Your task to perform on an android device: Open Google Chrome and click the shortcut for Amazon.com Image 0: 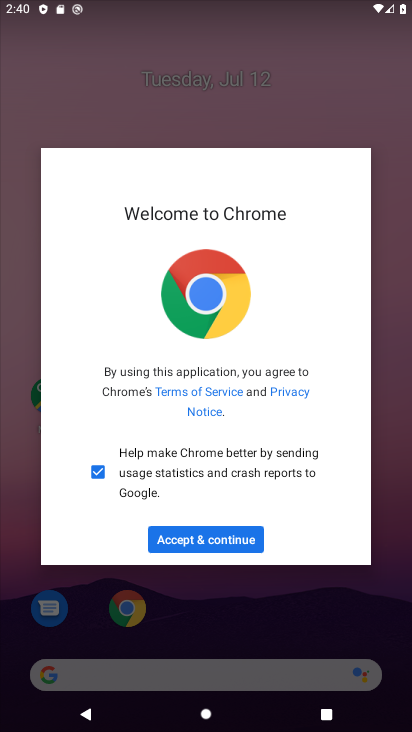
Step 0: click (203, 527)
Your task to perform on an android device: Open Google Chrome and click the shortcut for Amazon.com Image 1: 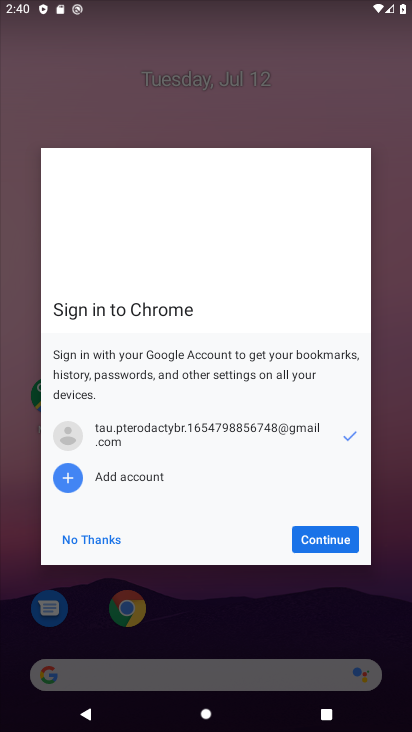
Step 1: click (314, 536)
Your task to perform on an android device: Open Google Chrome and click the shortcut for Amazon.com Image 2: 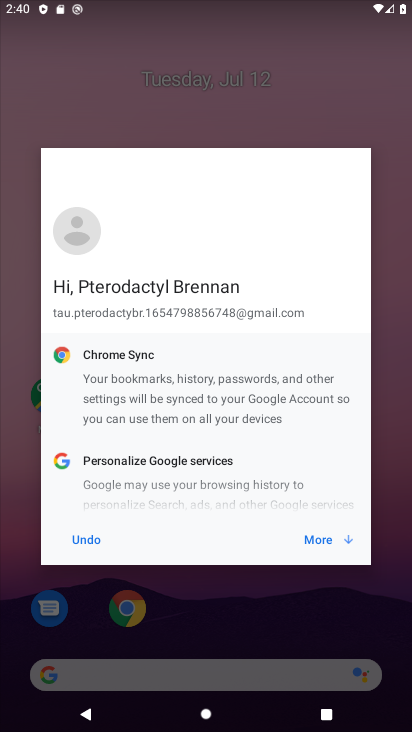
Step 2: click (314, 536)
Your task to perform on an android device: Open Google Chrome and click the shortcut for Amazon.com Image 3: 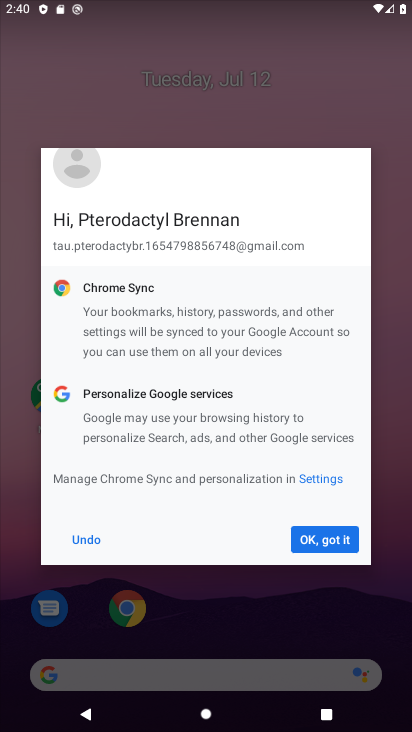
Step 3: click (314, 536)
Your task to perform on an android device: Open Google Chrome and click the shortcut for Amazon.com Image 4: 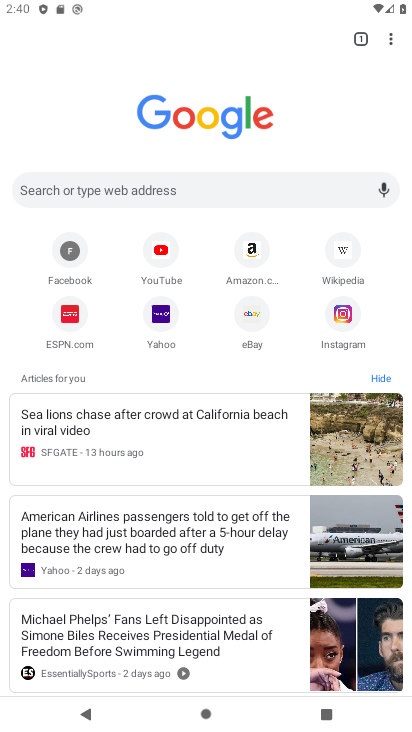
Step 4: click (259, 252)
Your task to perform on an android device: Open Google Chrome and click the shortcut for Amazon.com Image 5: 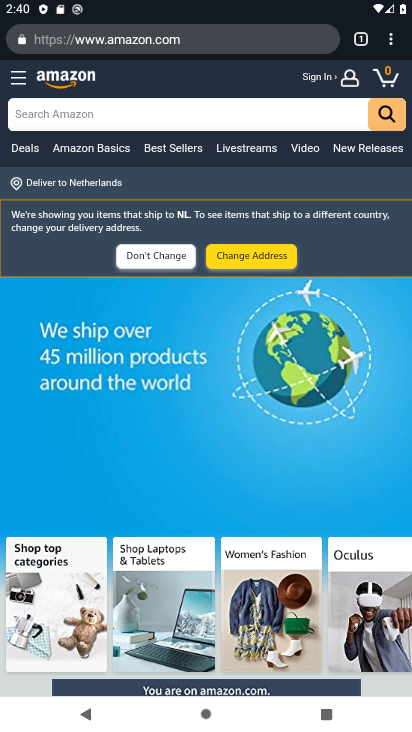
Step 5: task complete